Your task to perform on an android device: Search for vegetarian restaurants on Maps Image 0: 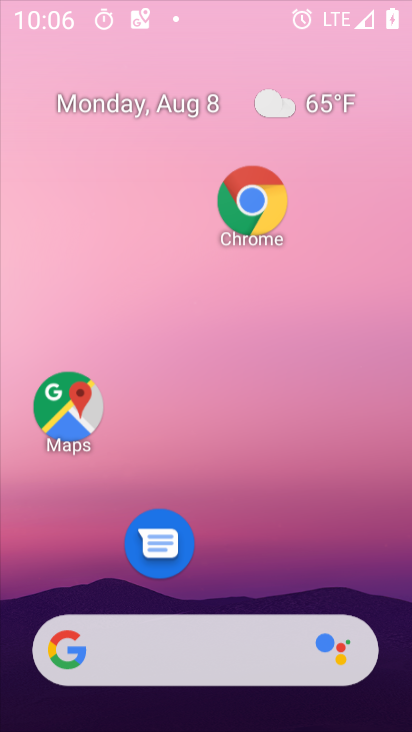
Step 0: press home button
Your task to perform on an android device: Search for vegetarian restaurants on Maps Image 1: 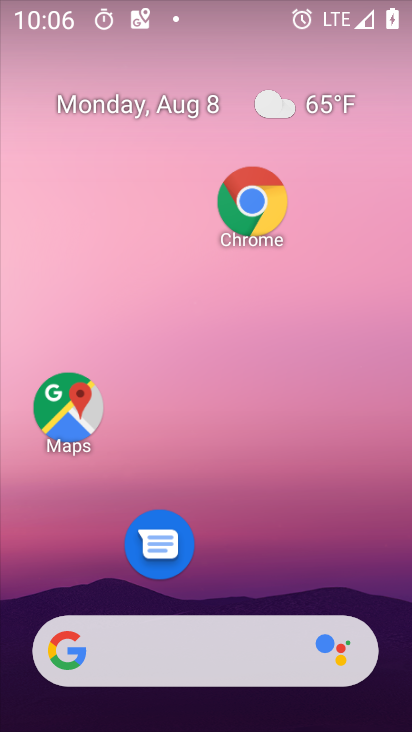
Step 1: click (64, 409)
Your task to perform on an android device: Search for vegetarian restaurants on Maps Image 2: 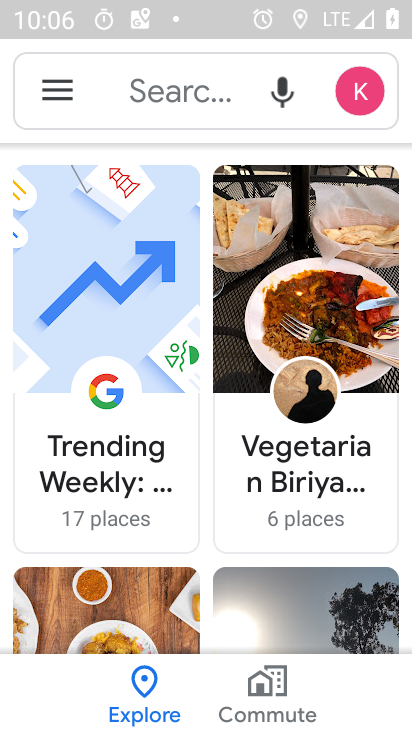
Step 2: click (150, 84)
Your task to perform on an android device: Search for vegetarian restaurants on Maps Image 3: 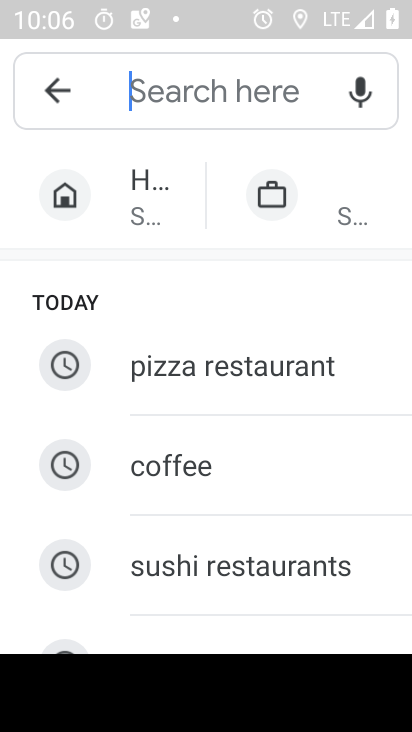
Step 3: drag from (165, 531) to (150, 246)
Your task to perform on an android device: Search for vegetarian restaurants on Maps Image 4: 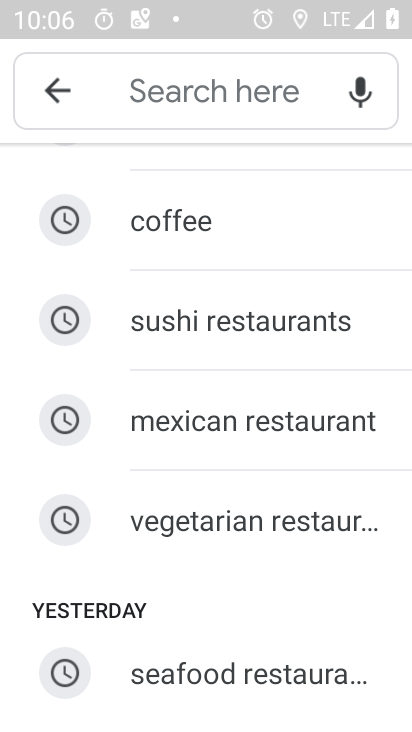
Step 4: click (110, 516)
Your task to perform on an android device: Search for vegetarian restaurants on Maps Image 5: 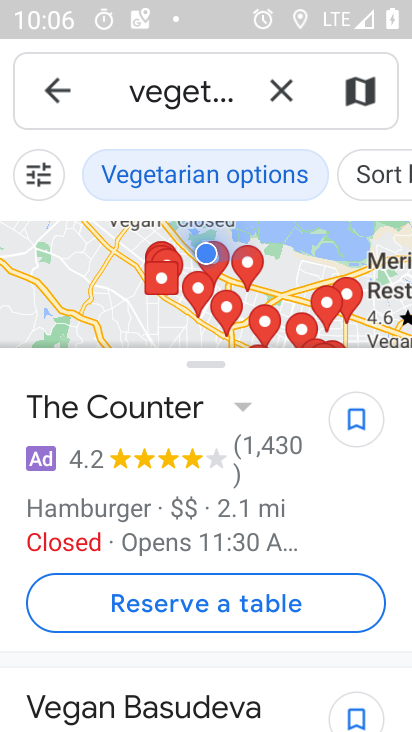
Step 5: task complete